Your task to perform on an android device: Open Wikipedia Image 0: 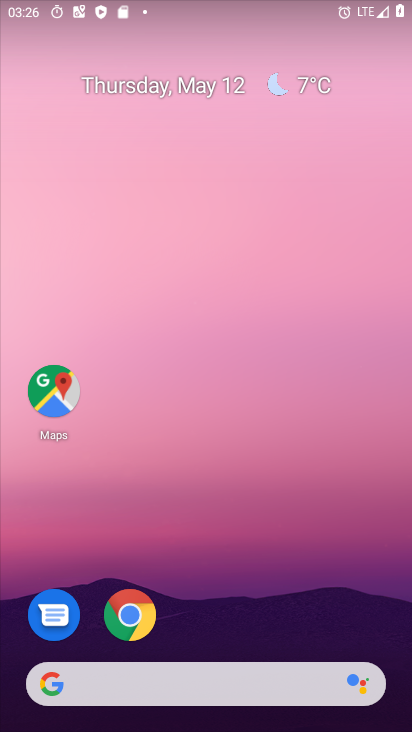
Step 0: click (154, 631)
Your task to perform on an android device: Open Wikipedia Image 1: 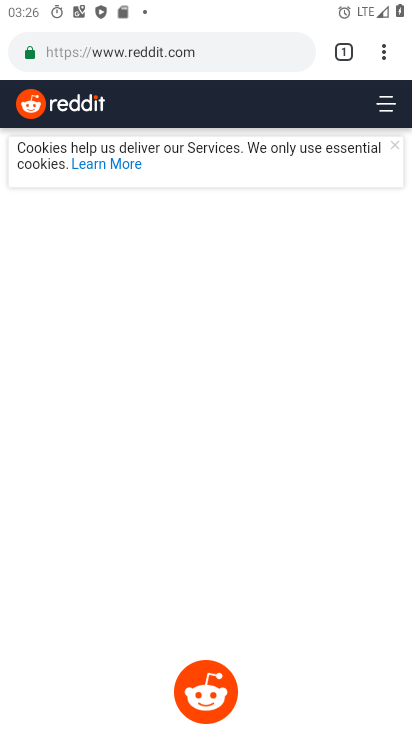
Step 1: click (148, 50)
Your task to perform on an android device: Open Wikipedia Image 2: 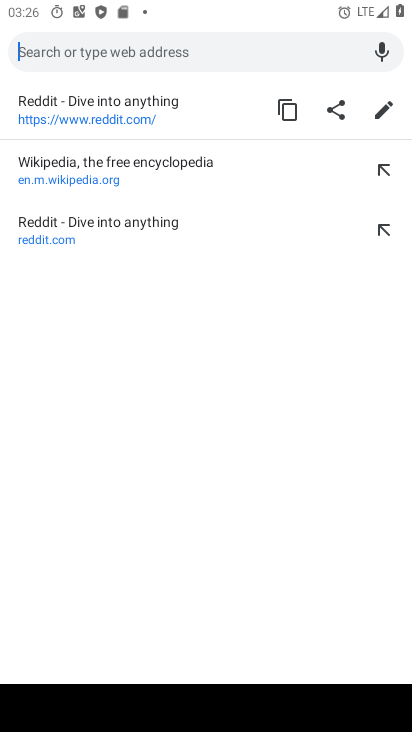
Step 2: click (83, 163)
Your task to perform on an android device: Open Wikipedia Image 3: 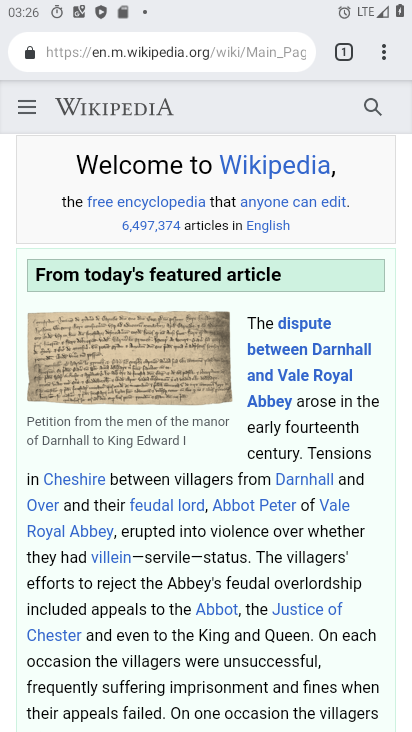
Step 3: task complete